Your task to perform on an android device: Go to Android settings Image 0: 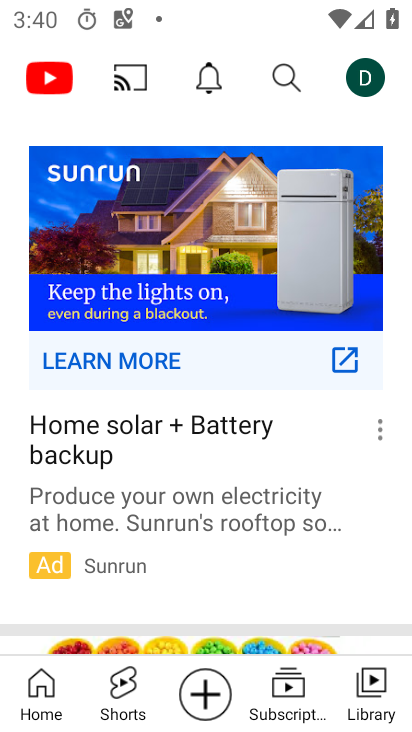
Step 0: press home button
Your task to perform on an android device: Go to Android settings Image 1: 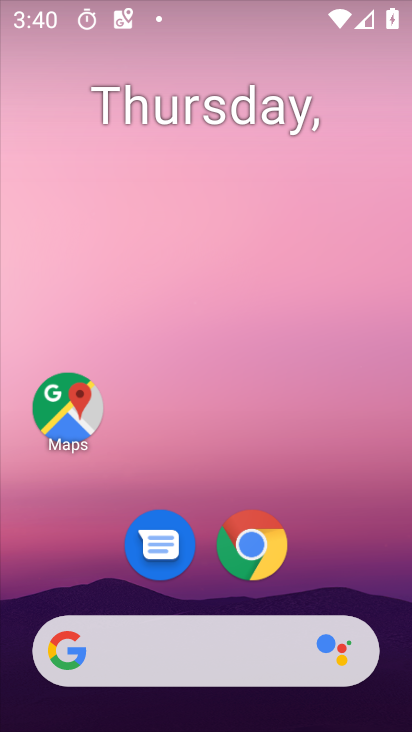
Step 1: drag from (208, 730) to (208, 33)
Your task to perform on an android device: Go to Android settings Image 2: 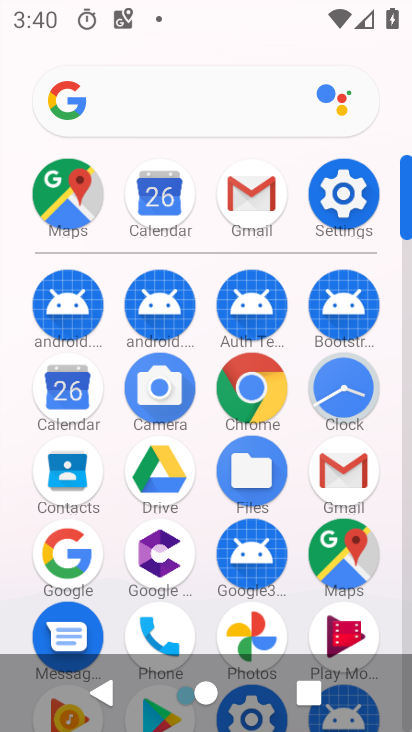
Step 2: click (355, 197)
Your task to perform on an android device: Go to Android settings Image 3: 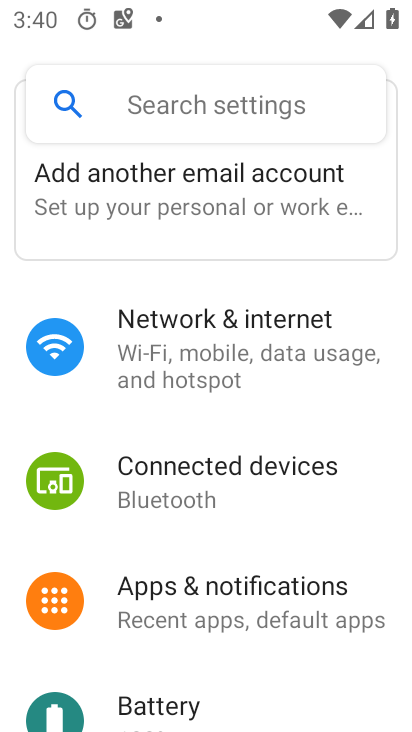
Step 3: task complete